Your task to perform on an android device: check data usage Image 0: 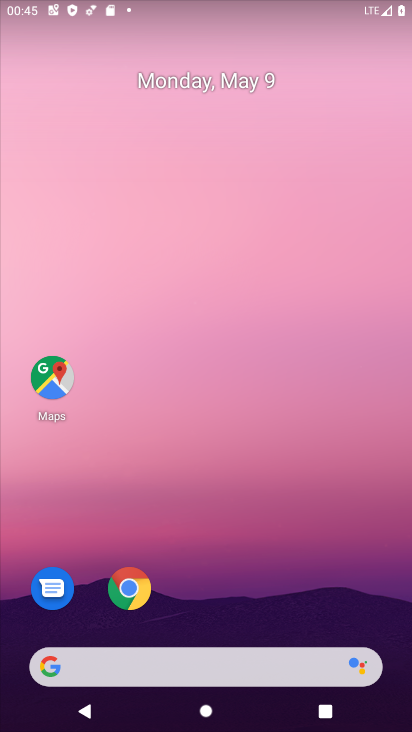
Step 0: drag from (246, 361) to (204, 102)
Your task to perform on an android device: check data usage Image 1: 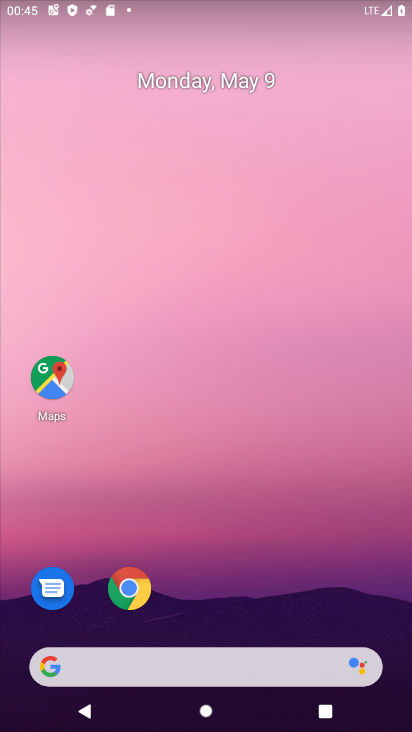
Step 1: drag from (274, 576) to (172, 7)
Your task to perform on an android device: check data usage Image 2: 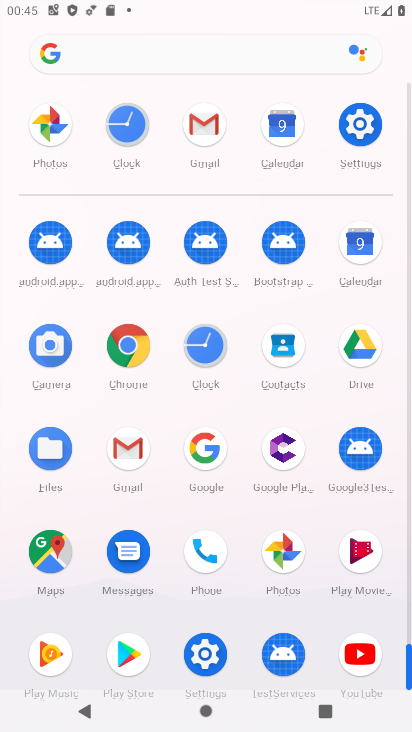
Step 2: click (362, 117)
Your task to perform on an android device: check data usage Image 3: 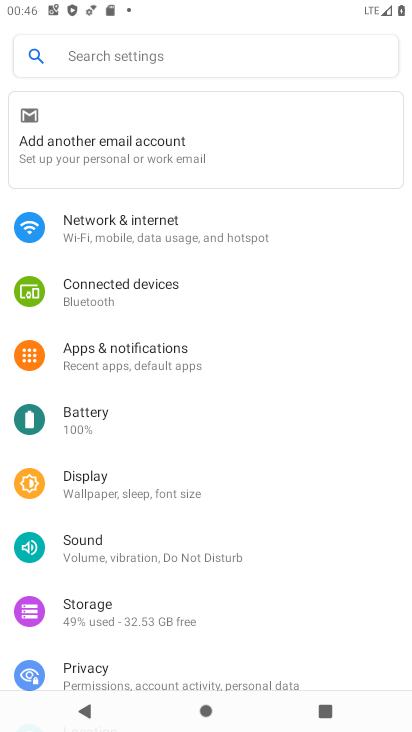
Step 3: click (116, 223)
Your task to perform on an android device: check data usage Image 4: 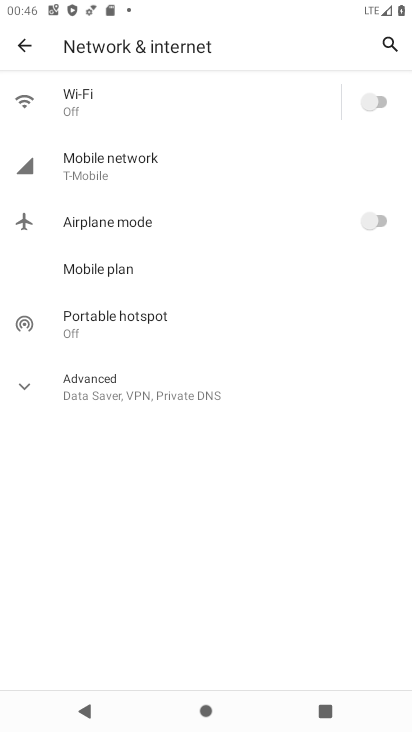
Step 4: click (98, 147)
Your task to perform on an android device: check data usage Image 5: 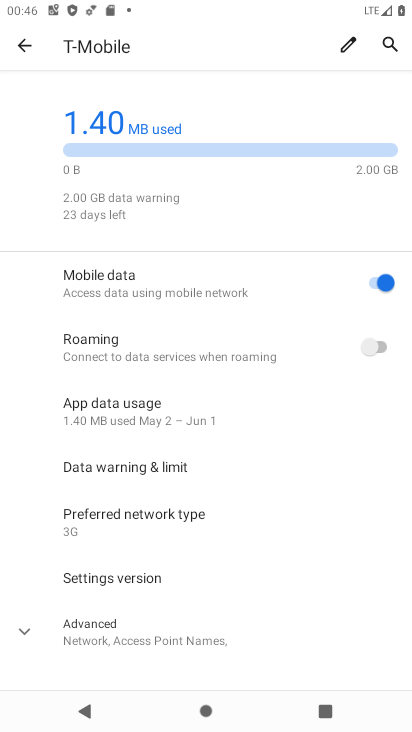
Step 5: task complete